Your task to perform on an android device: Go to notification settings Image 0: 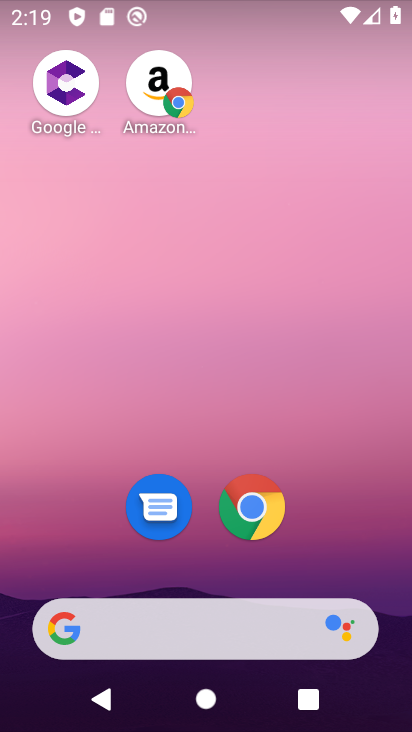
Step 0: drag from (198, 482) to (262, 149)
Your task to perform on an android device: Go to notification settings Image 1: 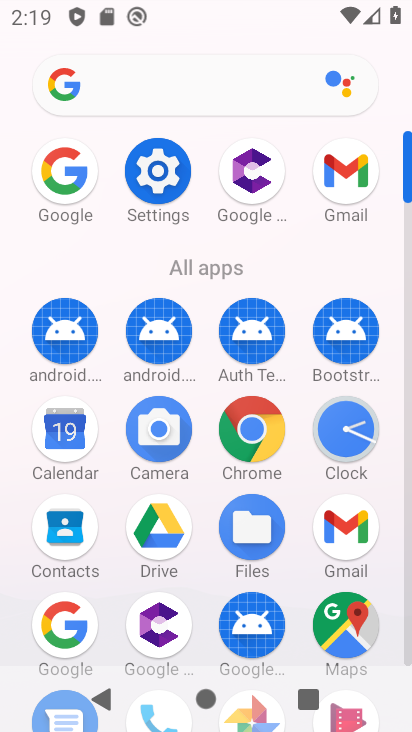
Step 1: click (148, 170)
Your task to perform on an android device: Go to notification settings Image 2: 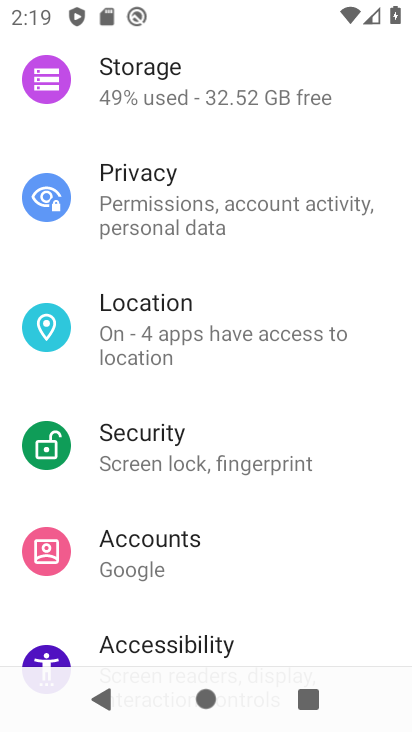
Step 2: drag from (259, 140) to (260, 543)
Your task to perform on an android device: Go to notification settings Image 3: 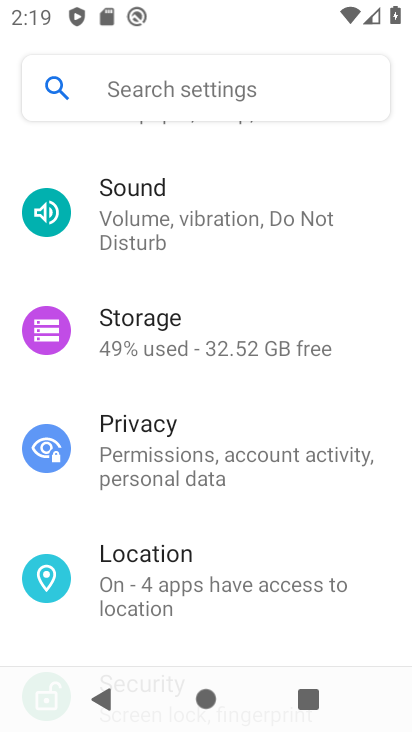
Step 3: drag from (301, 187) to (307, 596)
Your task to perform on an android device: Go to notification settings Image 4: 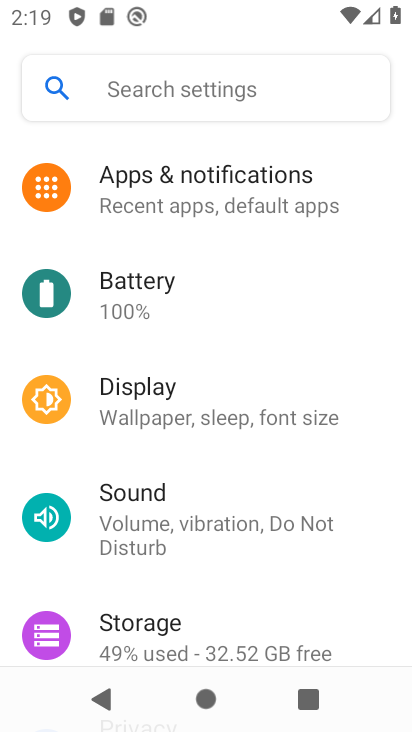
Step 4: click (266, 164)
Your task to perform on an android device: Go to notification settings Image 5: 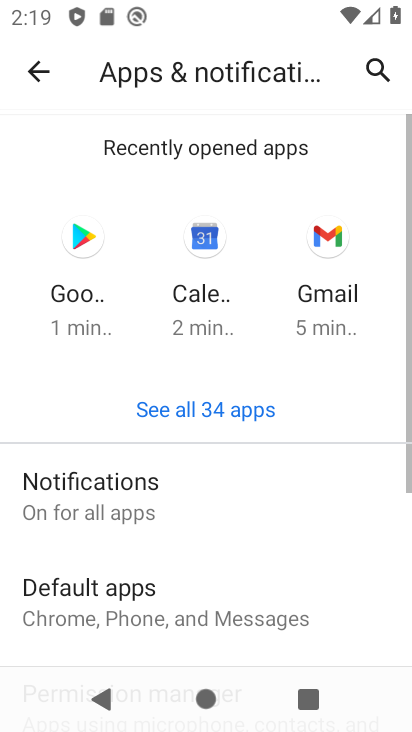
Step 5: task complete